Your task to perform on an android device: Open calendar and show me the first week of next month Image 0: 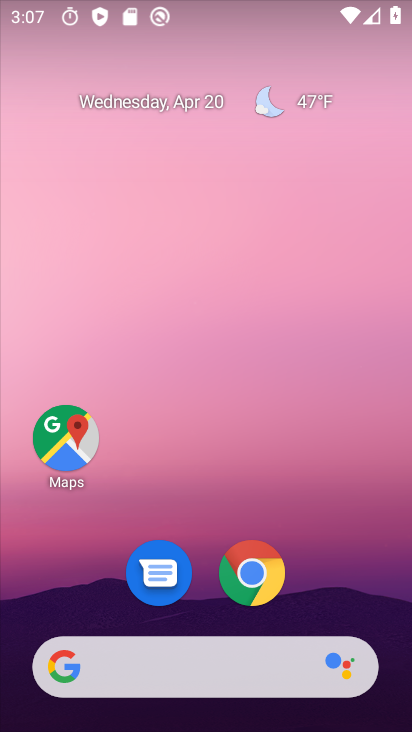
Step 0: drag from (216, 716) to (216, 145)
Your task to perform on an android device: Open calendar and show me the first week of next month Image 1: 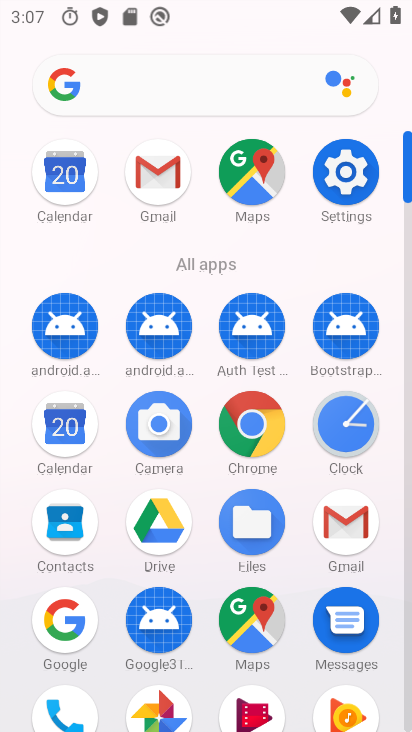
Step 1: click (65, 430)
Your task to perform on an android device: Open calendar and show me the first week of next month Image 2: 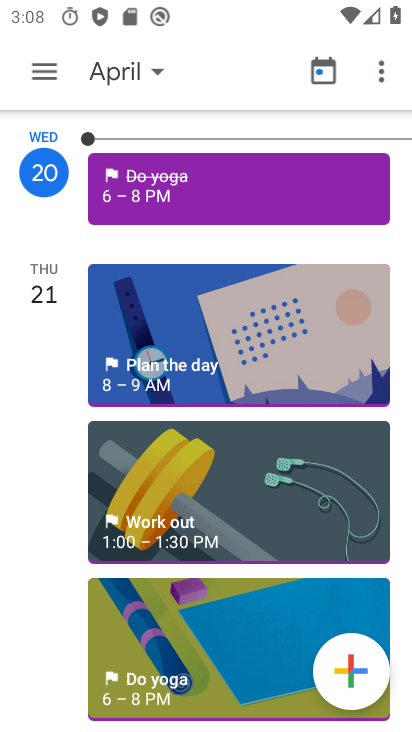
Step 2: click (113, 77)
Your task to perform on an android device: Open calendar and show me the first week of next month Image 3: 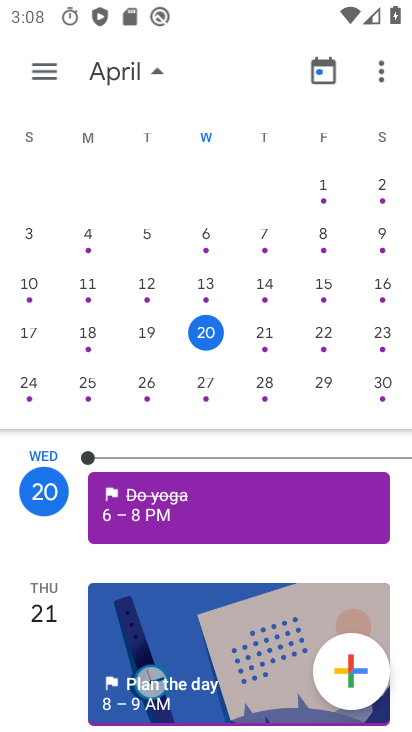
Step 3: drag from (359, 315) to (30, 288)
Your task to perform on an android device: Open calendar and show me the first week of next month Image 4: 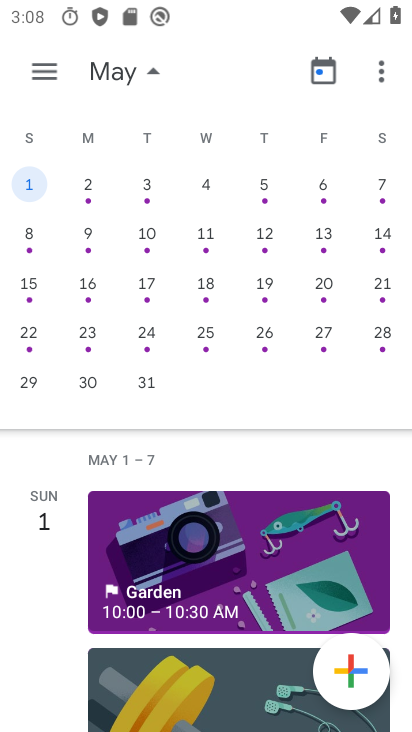
Step 4: click (87, 184)
Your task to perform on an android device: Open calendar and show me the first week of next month Image 5: 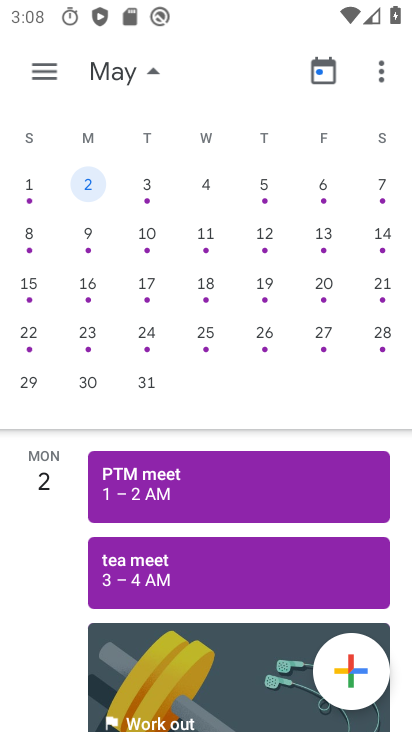
Step 5: task complete